Your task to perform on an android device: turn off sleep mode Image 0: 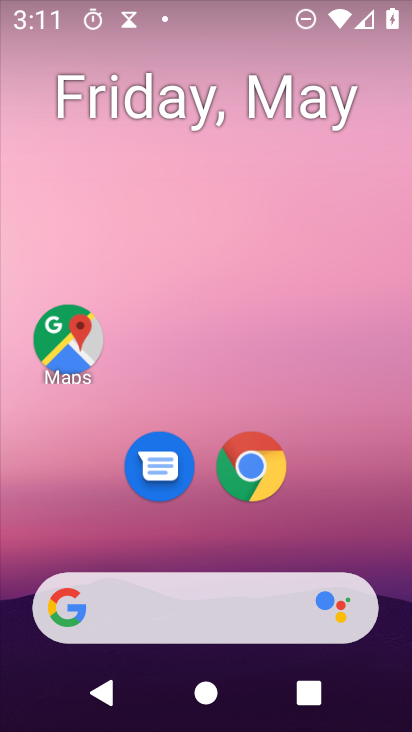
Step 0: drag from (352, 520) to (400, 27)
Your task to perform on an android device: turn off sleep mode Image 1: 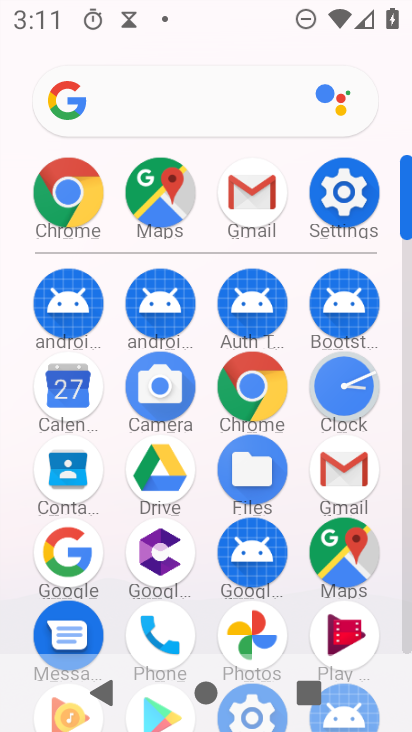
Step 1: click (365, 204)
Your task to perform on an android device: turn off sleep mode Image 2: 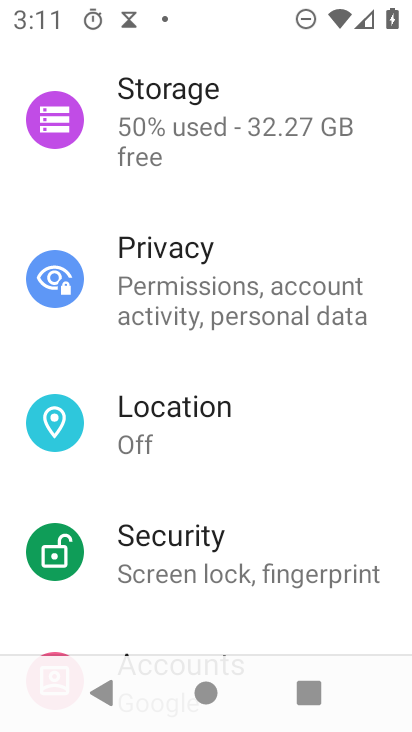
Step 2: drag from (241, 255) to (242, 612)
Your task to perform on an android device: turn off sleep mode Image 3: 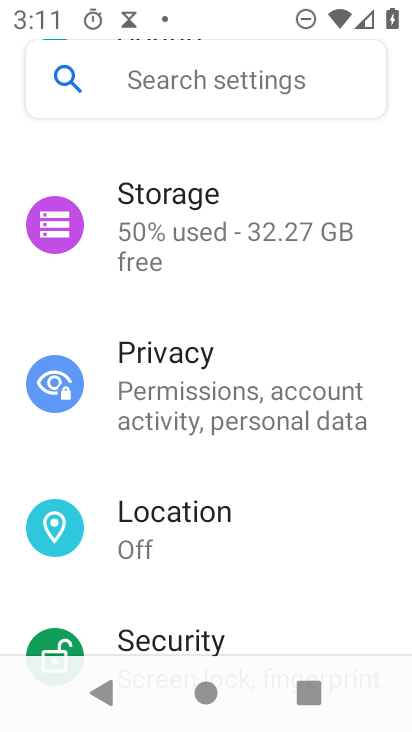
Step 3: drag from (239, 217) to (252, 624)
Your task to perform on an android device: turn off sleep mode Image 4: 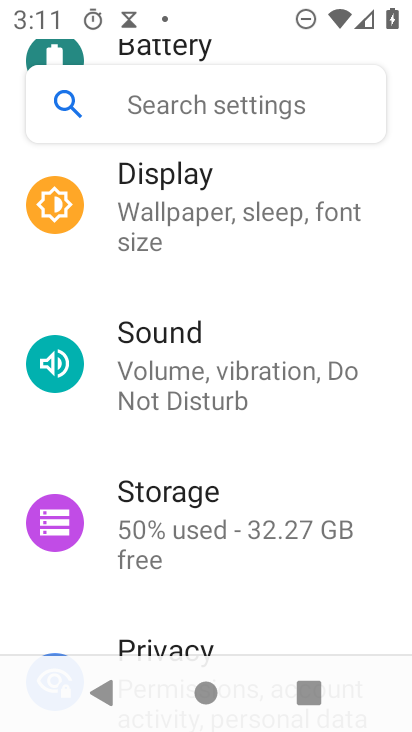
Step 4: click (207, 212)
Your task to perform on an android device: turn off sleep mode Image 5: 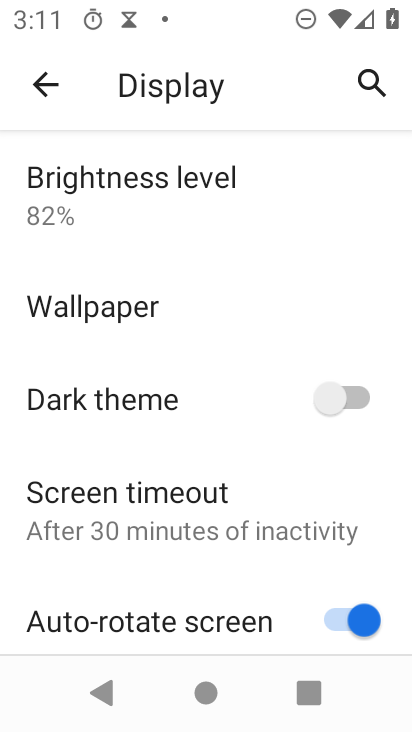
Step 5: click (85, 501)
Your task to perform on an android device: turn off sleep mode Image 6: 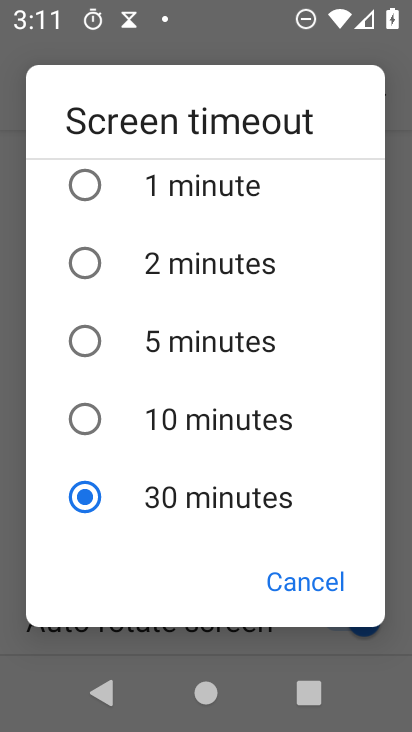
Step 6: task complete